Your task to perform on an android device: find which apps use the phone's location Image 0: 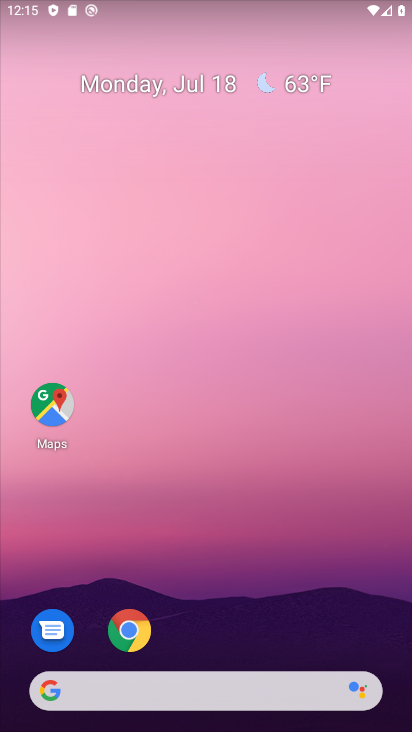
Step 0: drag from (201, 660) to (215, 78)
Your task to perform on an android device: find which apps use the phone's location Image 1: 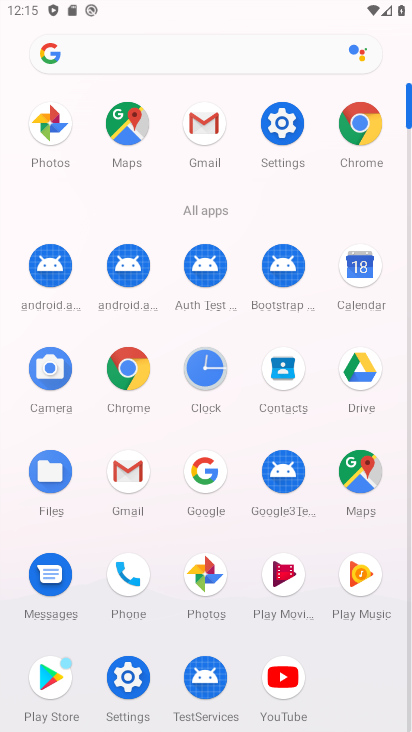
Step 1: click (280, 127)
Your task to perform on an android device: find which apps use the phone's location Image 2: 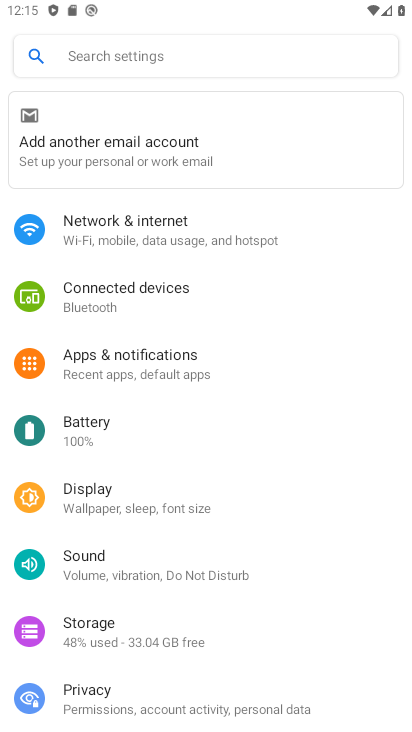
Step 2: drag from (105, 622) to (110, 294)
Your task to perform on an android device: find which apps use the phone's location Image 3: 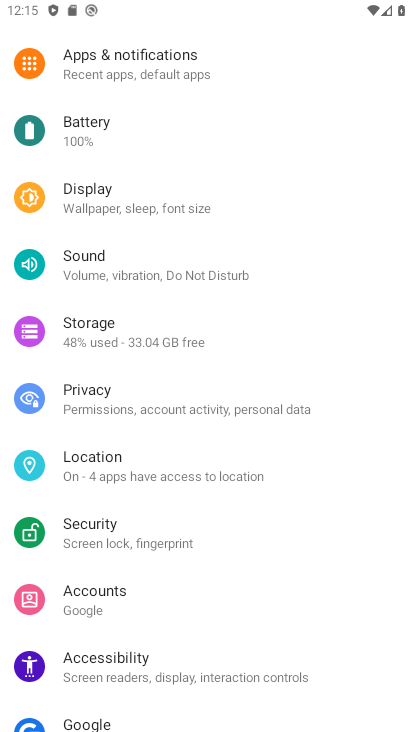
Step 3: click (109, 465)
Your task to perform on an android device: find which apps use the phone's location Image 4: 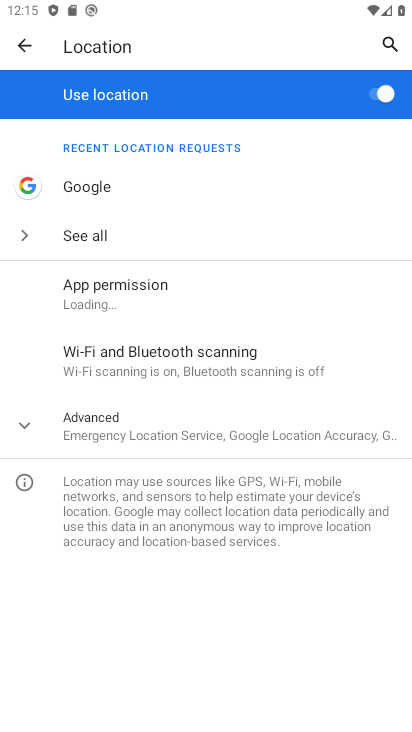
Step 4: click (95, 305)
Your task to perform on an android device: find which apps use the phone's location Image 5: 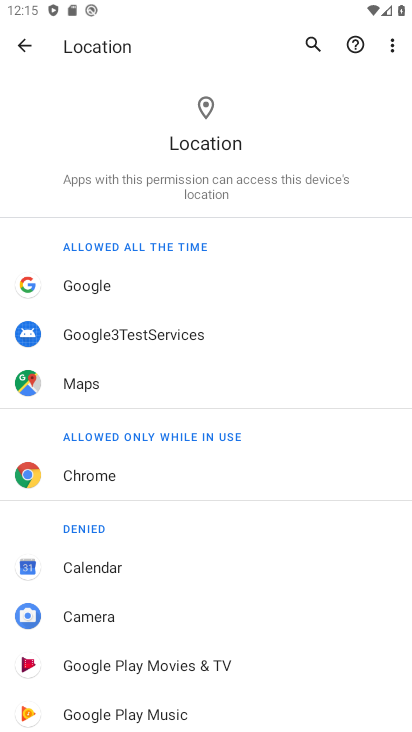
Step 5: task complete